Your task to perform on an android device: open device folders in google photos Image 0: 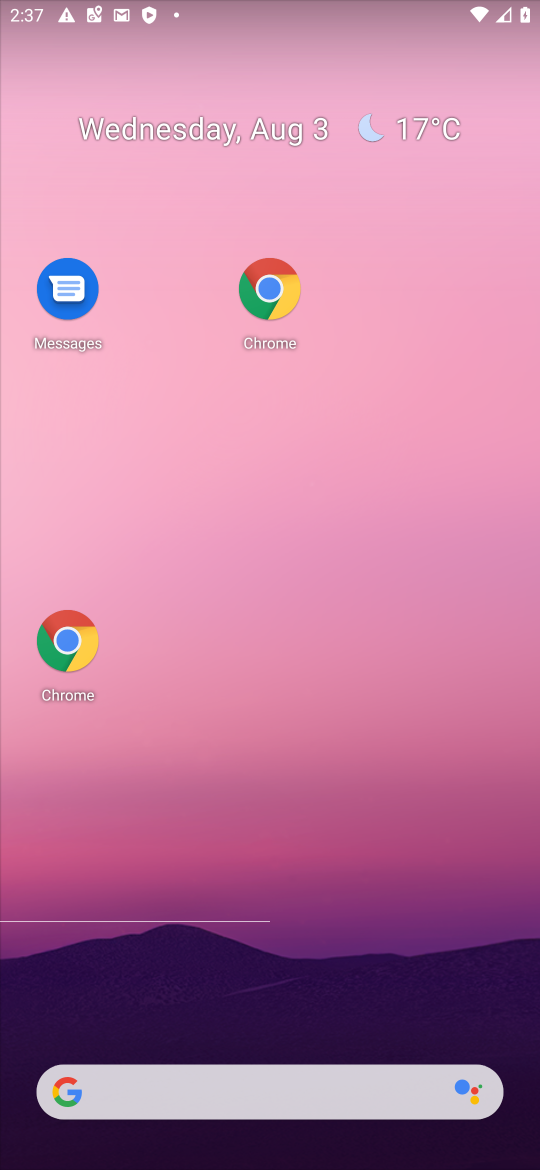
Step 0: drag from (282, 1036) to (346, 156)
Your task to perform on an android device: open device folders in google photos Image 1: 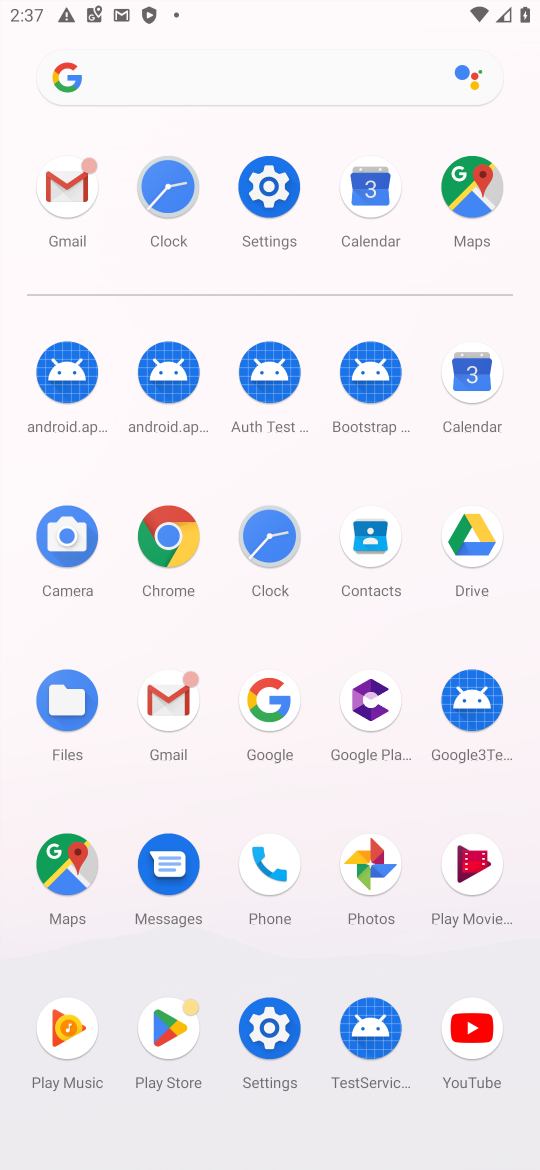
Step 1: click (364, 862)
Your task to perform on an android device: open device folders in google photos Image 2: 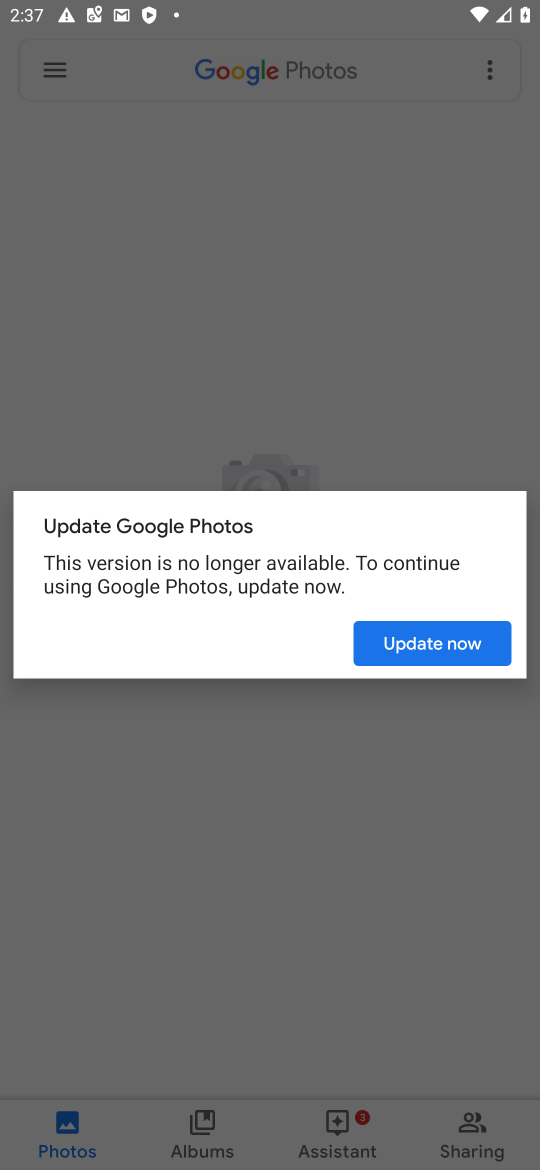
Step 2: click (427, 646)
Your task to perform on an android device: open device folders in google photos Image 3: 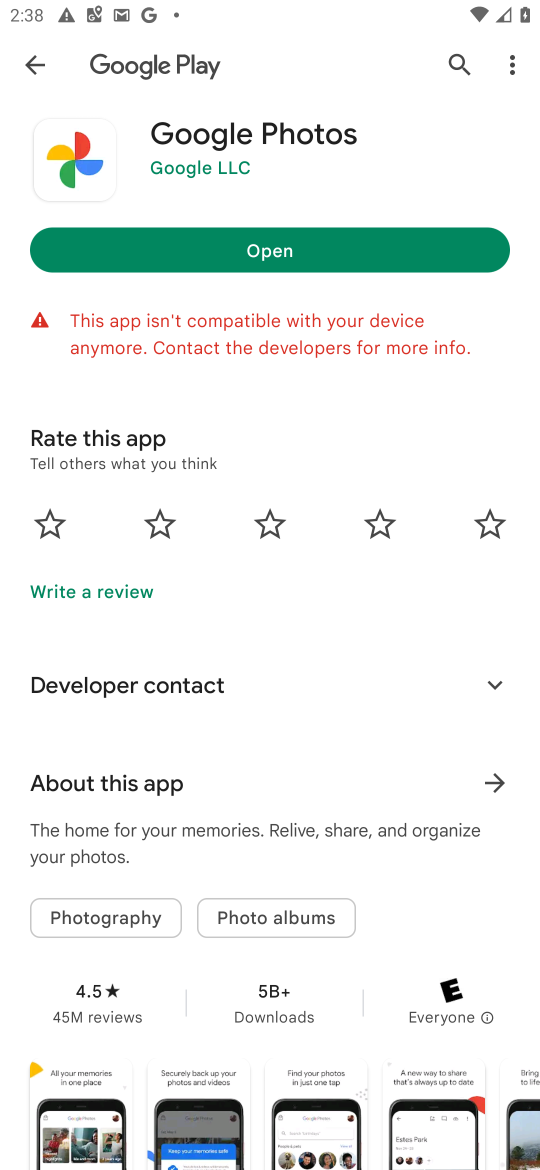
Step 3: click (291, 241)
Your task to perform on an android device: open device folders in google photos Image 4: 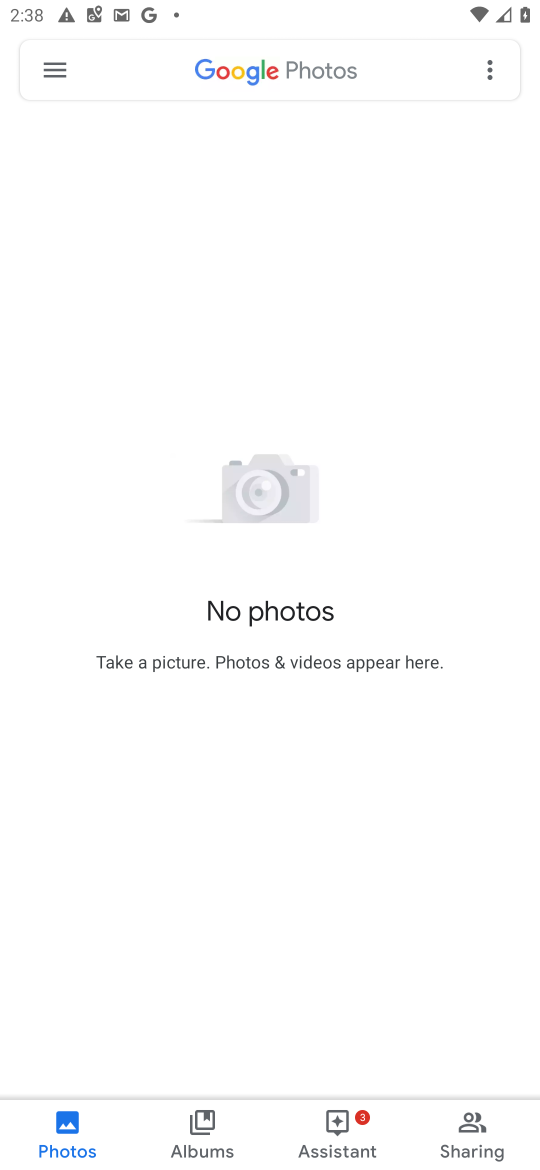
Step 4: click (51, 73)
Your task to perform on an android device: open device folders in google photos Image 5: 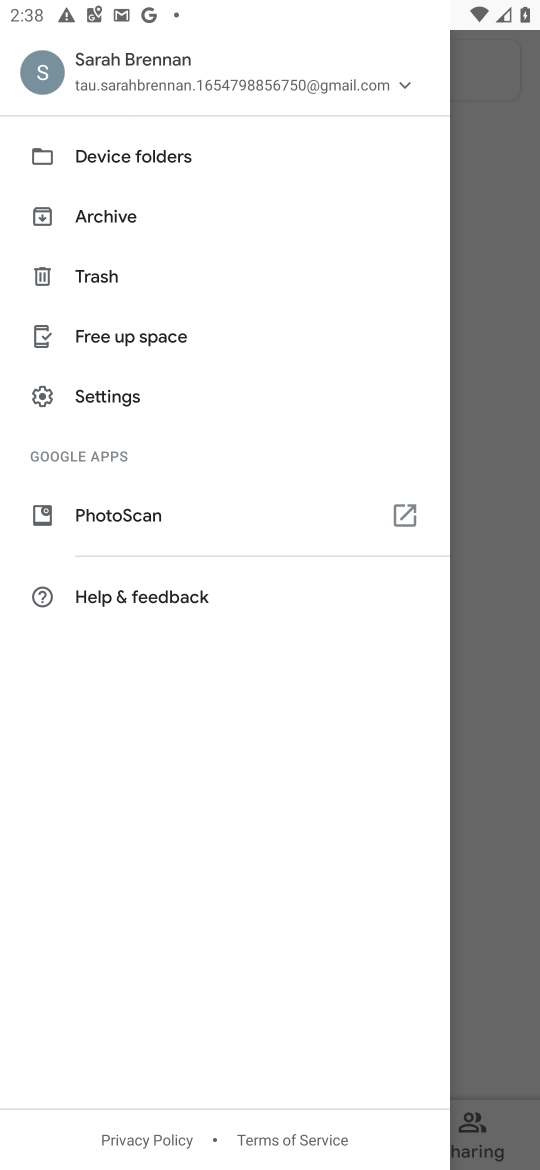
Step 5: click (110, 140)
Your task to perform on an android device: open device folders in google photos Image 6: 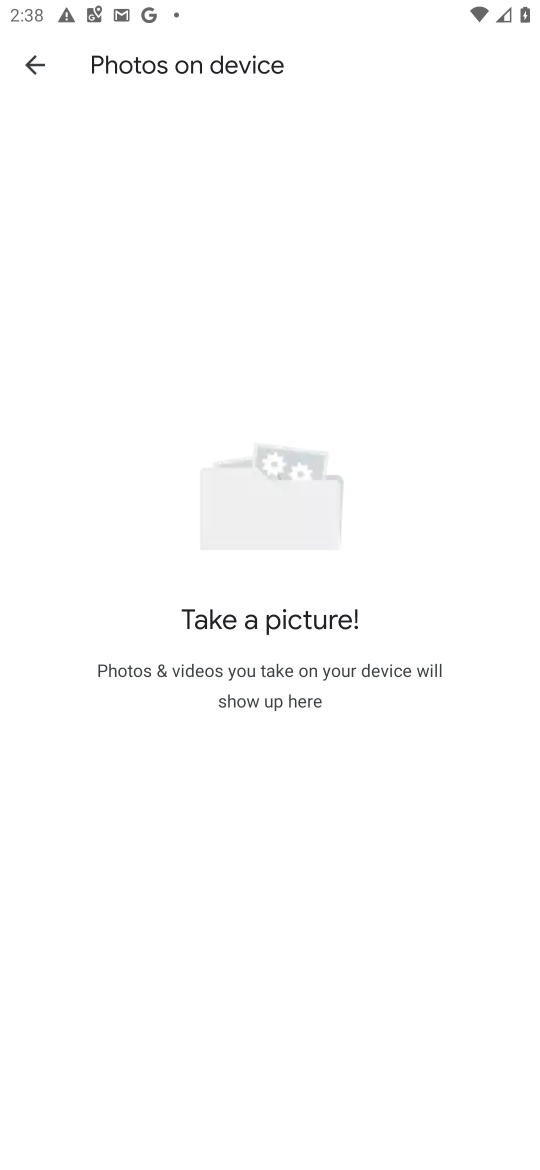
Step 6: task complete